Your task to perform on an android device: turn off smart reply in the gmail app Image 0: 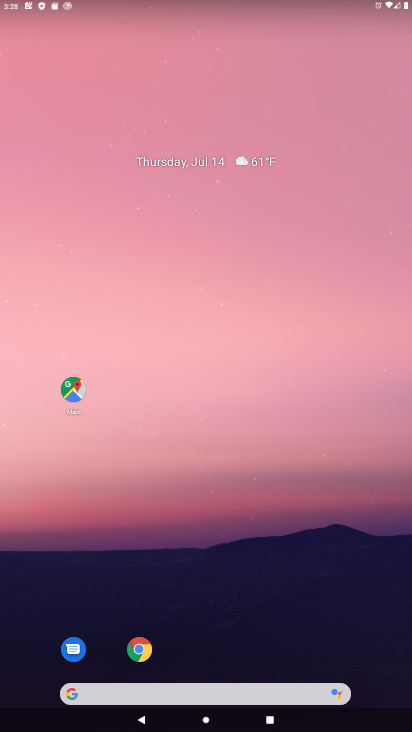
Step 0: drag from (196, 659) to (185, 107)
Your task to perform on an android device: turn off smart reply in the gmail app Image 1: 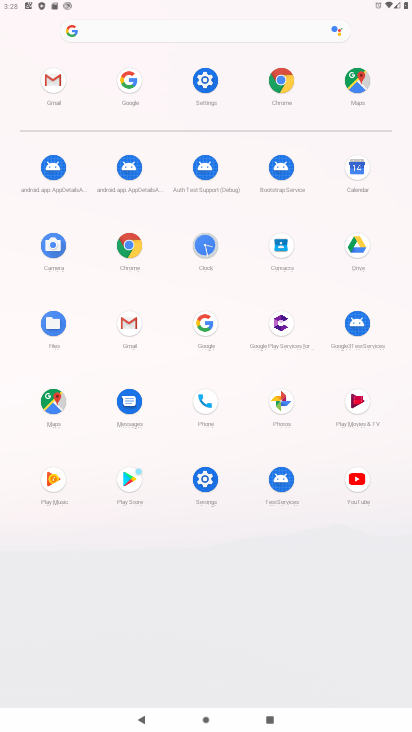
Step 1: click (128, 328)
Your task to perform on an android device: turn off smart reply in the gmail app Image 2: 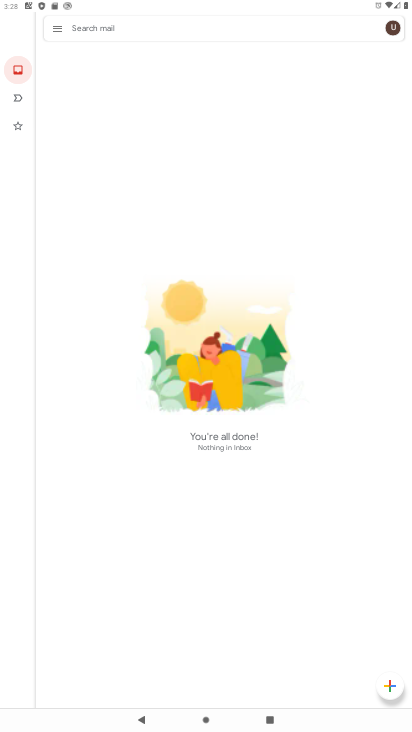
Step 2: click (52, 24)
Your task to perform on an android device: turn off smart reply in the gmail app Image 3: 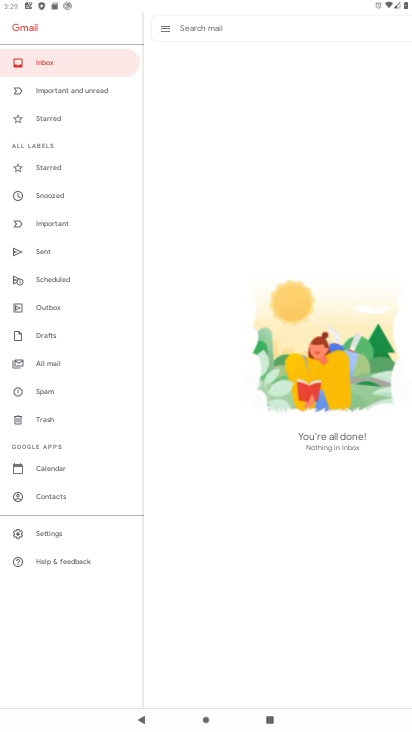
Step 3: click (59, 528)
Your task to perform on an android device: turn off smart reply in the gmail app Image 4: 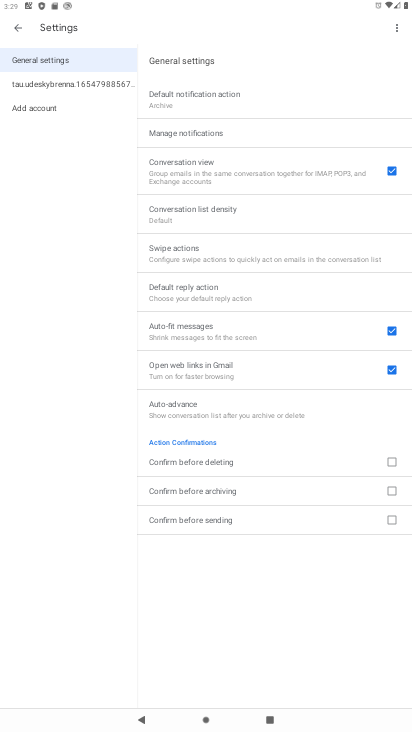
Step 4: click (17, 88)
Your task to perform on an android device: turn off smart reply in the gmail app Image 5: 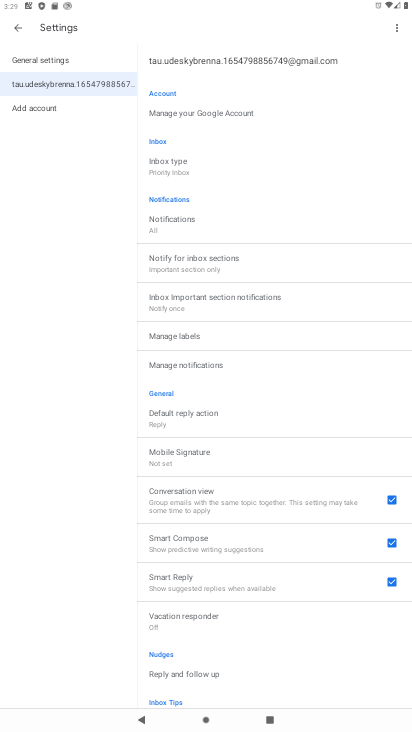
Step 5: click (390, 583)
Your task to perform on an android device: turn off smart reply in the gmail app Image 6: 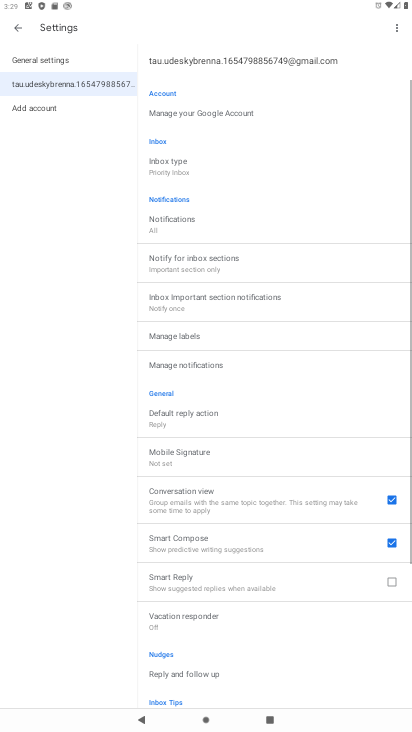
Step 6: task complete